Your task to perform on an android device: add a contact Image 0: 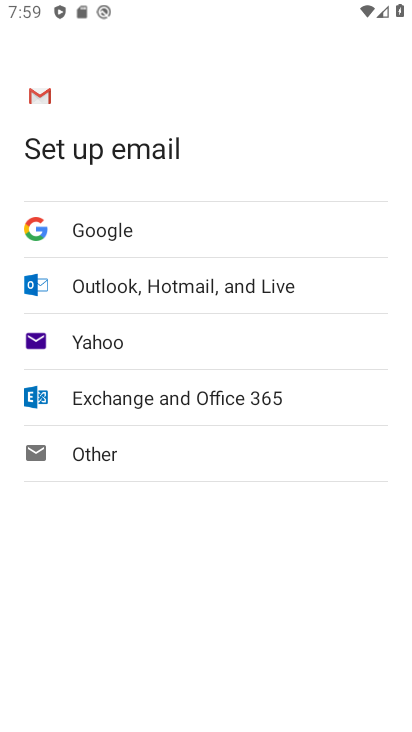
Step 0: press home button
Your task to perform on an android device: add a contact Image 1: 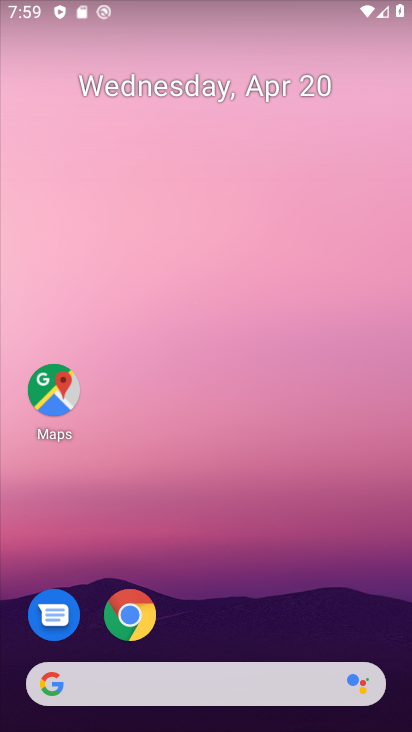
Step 1: drag from (223, 610) to (286, 94)
Your task to perform on an android device: add a contact Image 2: 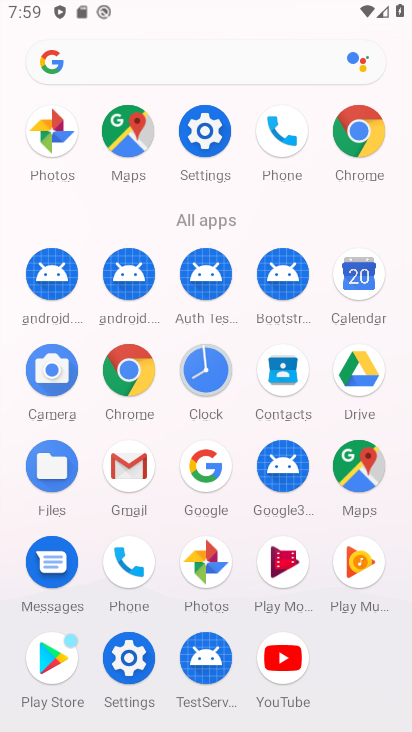
Step 2: click (285, 375)
Your task to perform on an android device: add a contact Image 3: 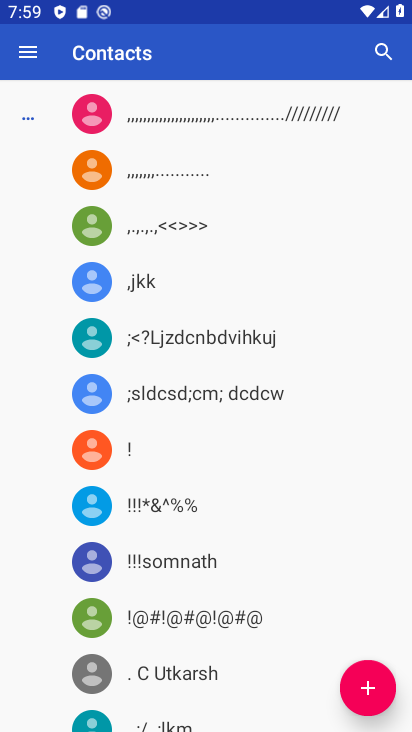
Step 3: click (373, 684)
Your task to perform on an android device: add a contact Image 4: 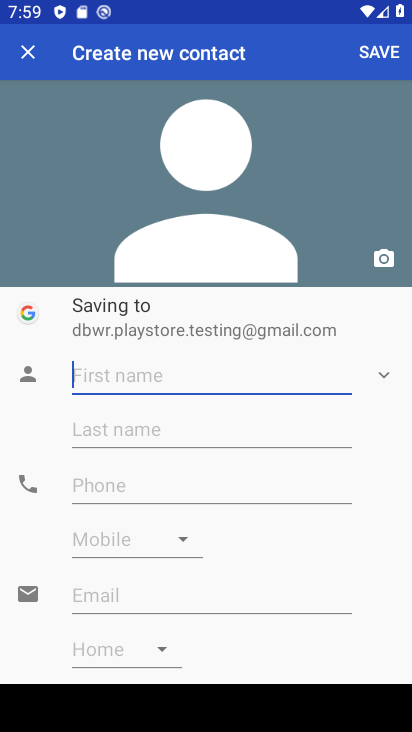
Step 4: click (231, 384)
Your task to perform on an android device: add a contact Image 5: 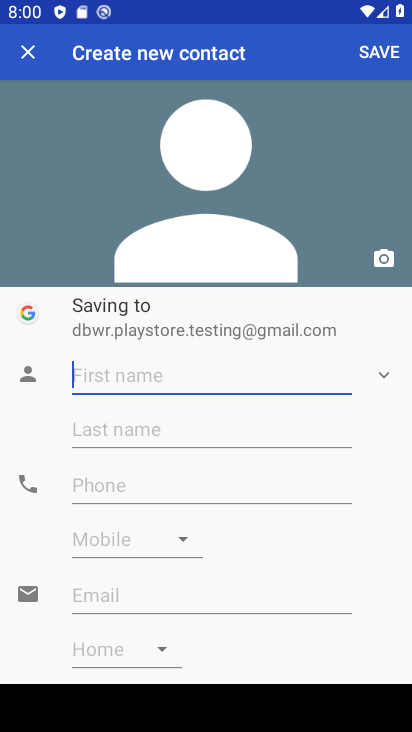
Step 5: type "Kumara"
Your task to perform on an android device: add a contact Image 6: 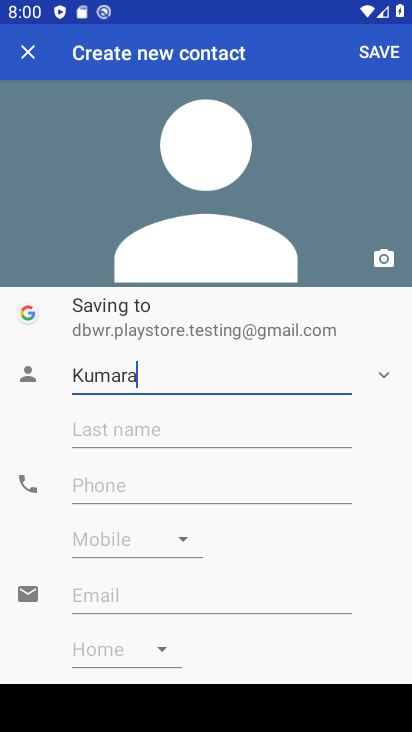
Step 6: click (251, 431)
Your task to perform on an android device: add a contact Image 7: 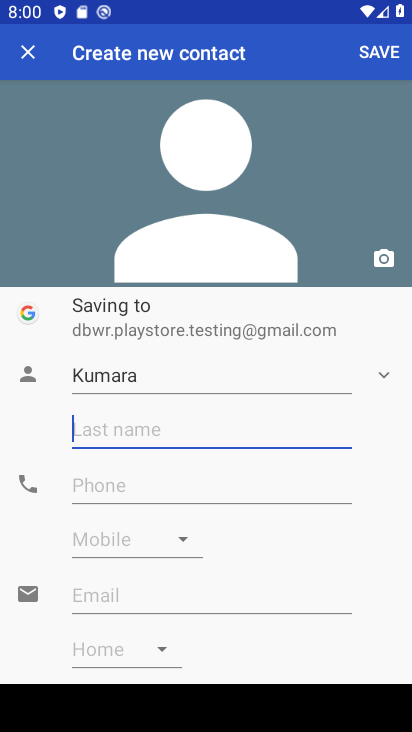
Step 7: type "Sangkara"
Your task to perform on an android device: add a contact Image 8: 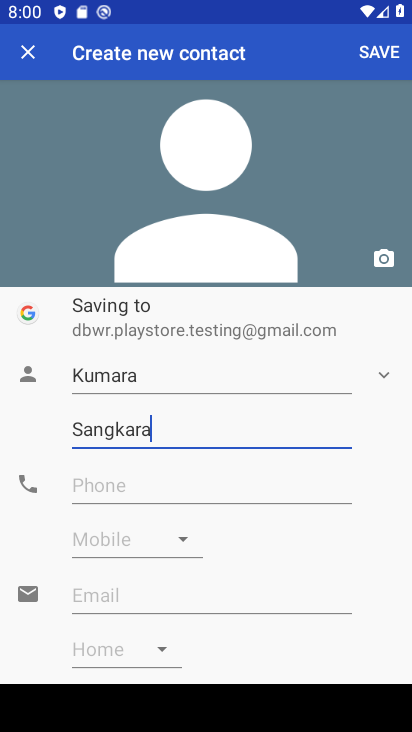
Step 8: click (231, 492)
Your task to perform on an android device: add a contact Image 9: 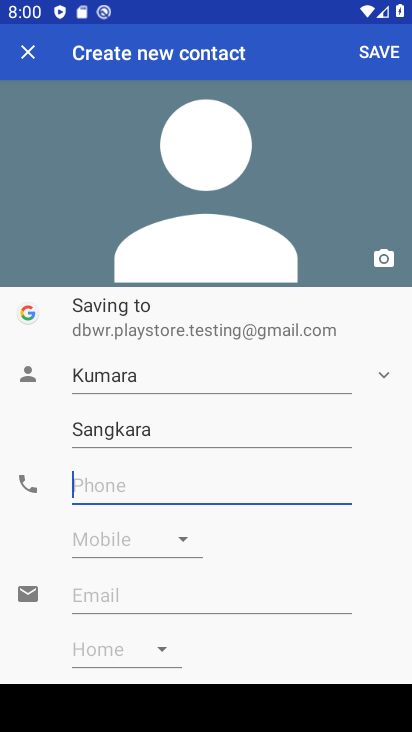
Step 9: type "09988776655"
Your task to perform on an android device: add a contact Image 10: 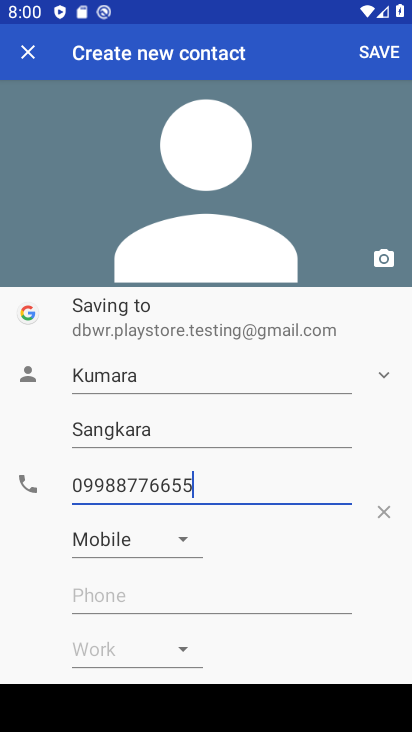
Step 10: click (373, 49)
Your task to perform on an android device: add a contact Image 11: 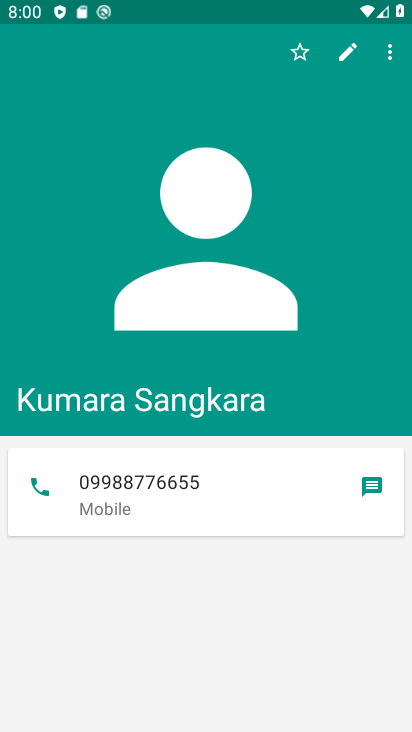
Step 11: task complete